Your task to perform on an android device: What's the weather going to be this weekend? Image 0: 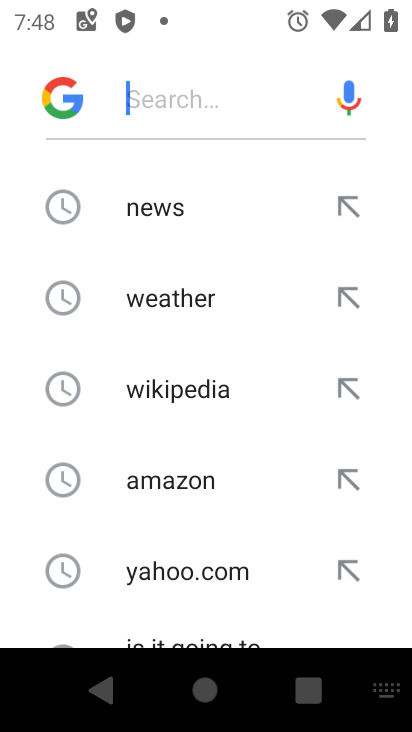
Step 0: press home button
Your task to perform on an android device: What's the weather going to be this weekend? Image 1: 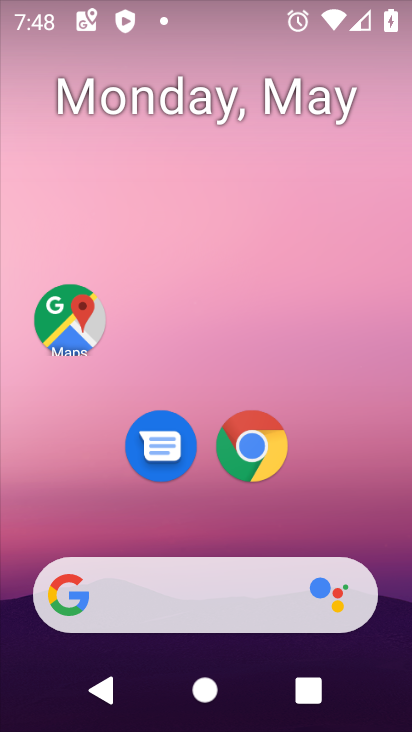
Step 1: click (179, 599)
Your task to perform on an android device: What's the weather going to be this weekend? Image 2: 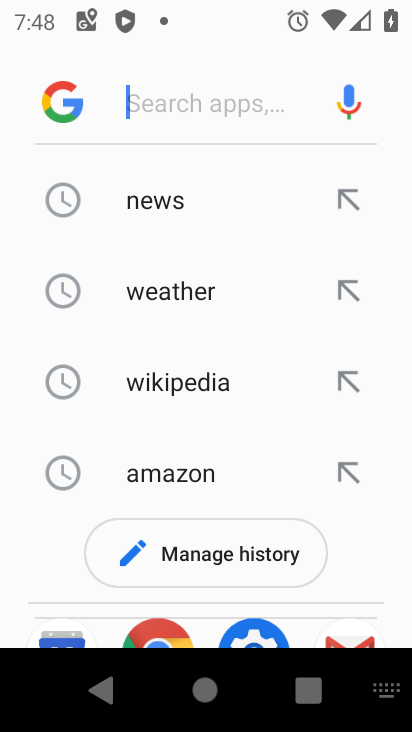
Step 2: click (179, 290)
Your task to perform on an android device: What's the weather going to be this weekend? Image 3: 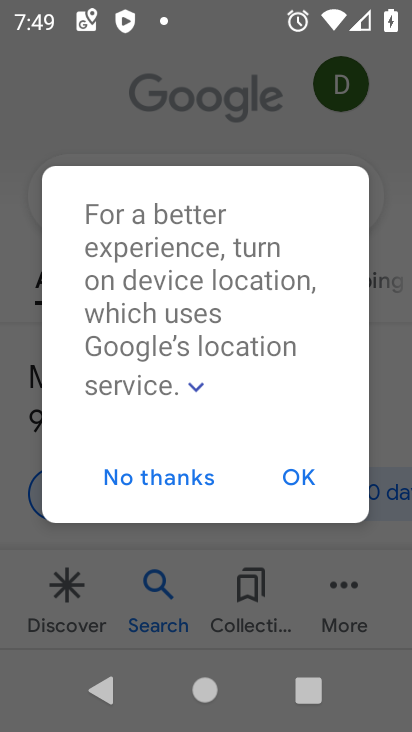
Step 3: click (361, 482)
Your task to perform on an android device: What's the weather going to be this weekend? Image 4: 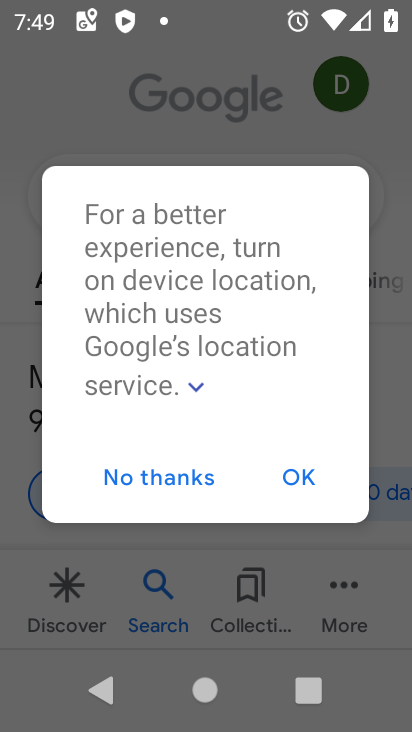
Step 4: click (303, 480)
Your task to perform on an android device: What's the weather going to be this weekend? Image 5: 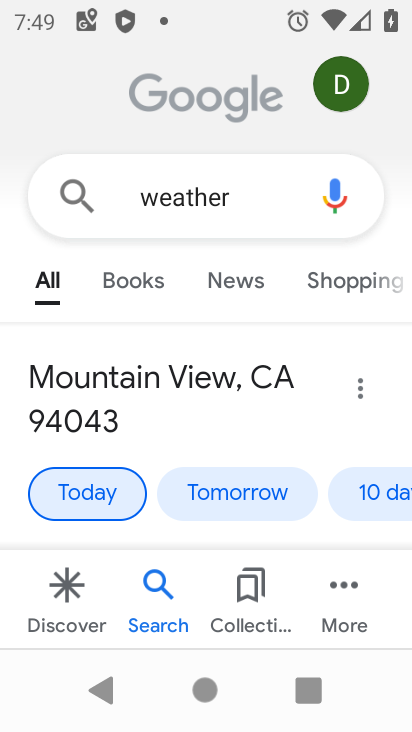
Step 5: click (356, 481)
Your task to perform on an android device: What's the weather going to be this weekend? Image 6: 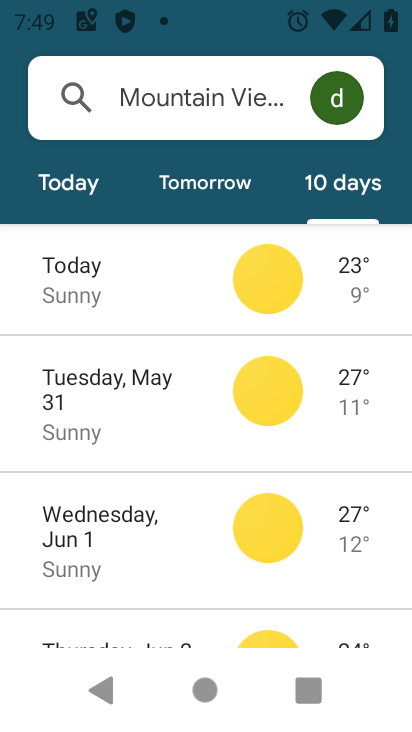
Step 6: task complete